Your task to perform on an android device: star an email in the gmail app Image 0: 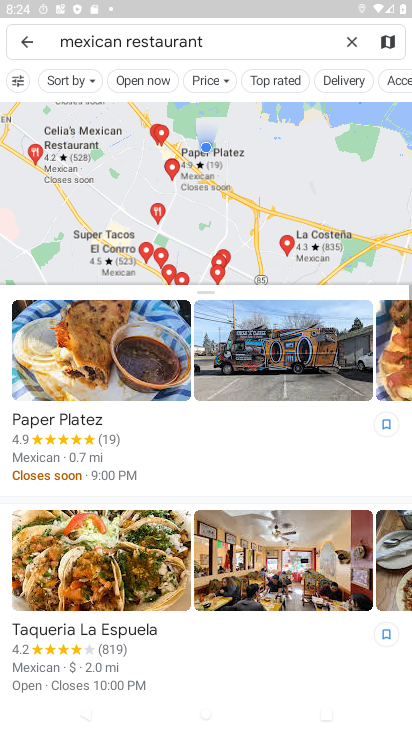
Step 0: press home button
Your task to perform on an android device: star an email in the gmail app Image 1: 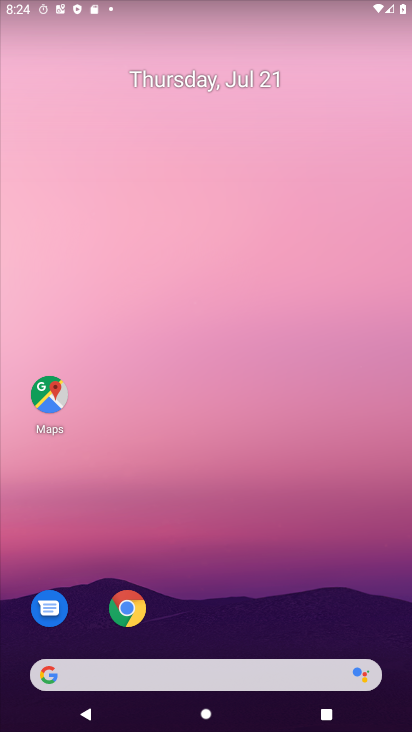
Step 1: drag from (229, 626) to (253, 73)
Your task to perform on an android device: star an email in the gmail app Image 2: 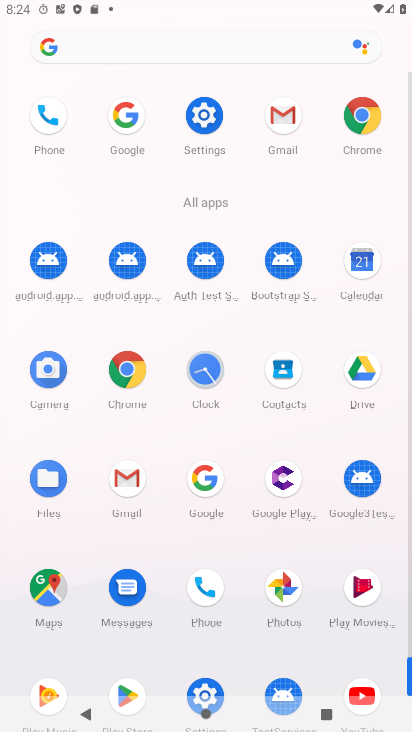
Step 2: click (116, 485)
Your task to perform on an android device: star an email in the gmail app Image 3: 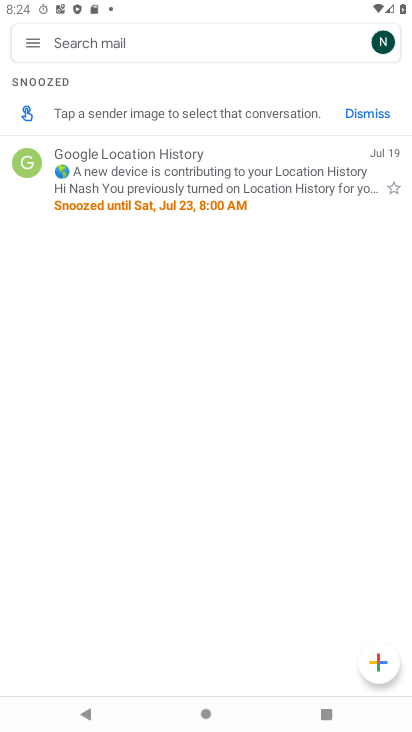
Step 3: click (396, 190)
Your task to perform on an android device: star an email in the gmail app Image 4: 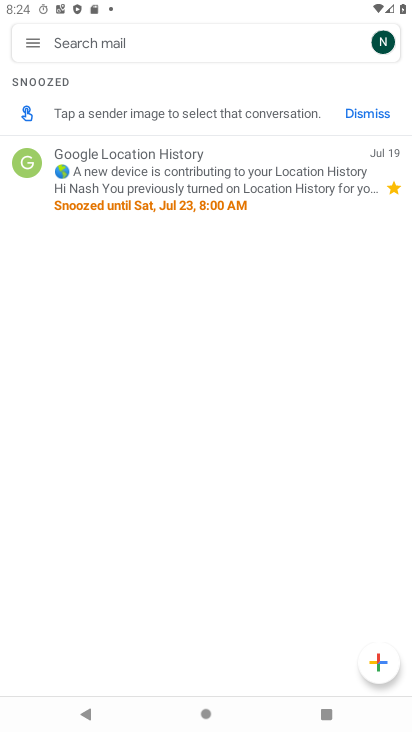
Step 4: task complete